Your task to perform on an android device: Do I have any events this weekend? Image 0: 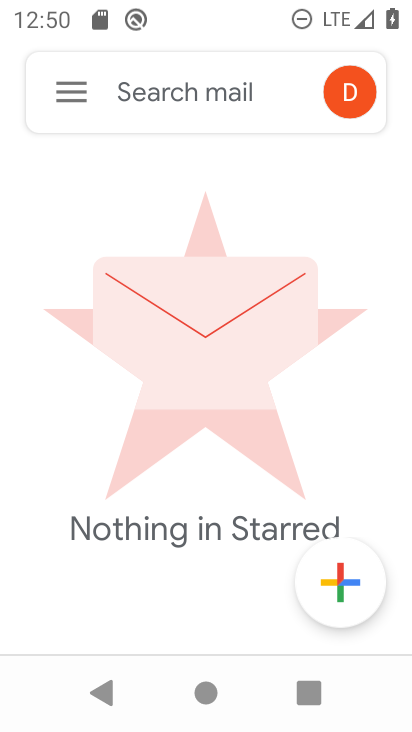
Step 0: press home button
Your task to perform on an android device: Do I have any events this weekend? Image 1: 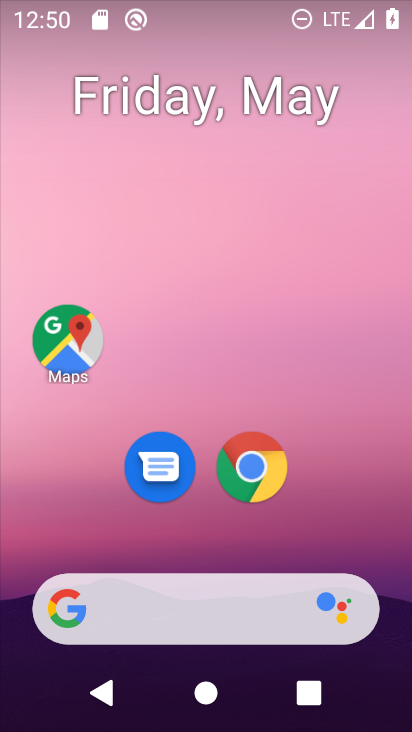
Step 1: drag from (206, 597) to (229, 4)
Your task to perform on an android device: Do I have any events this weekend? Image 2: 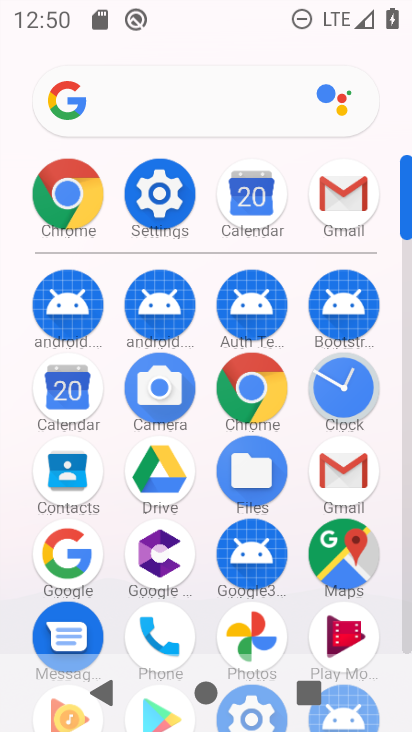
Step 2: click (66, 373)
Your task to perform on an android device: Do I have any events this weekend? Image 3: 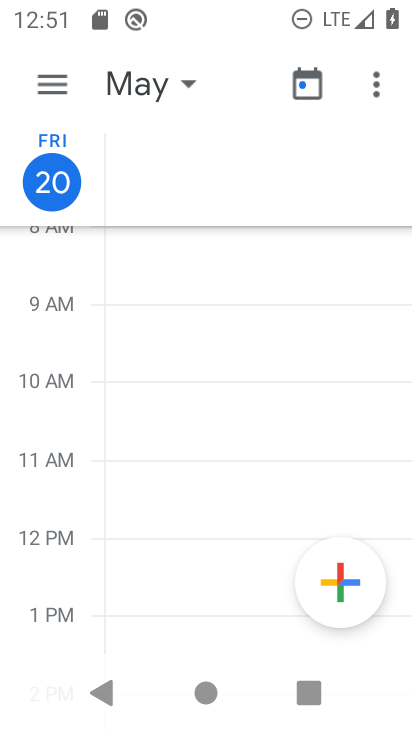
Step 3: click (184, 86)
Your task to perform on an android device: Do I have any events this weekend? Image 4: 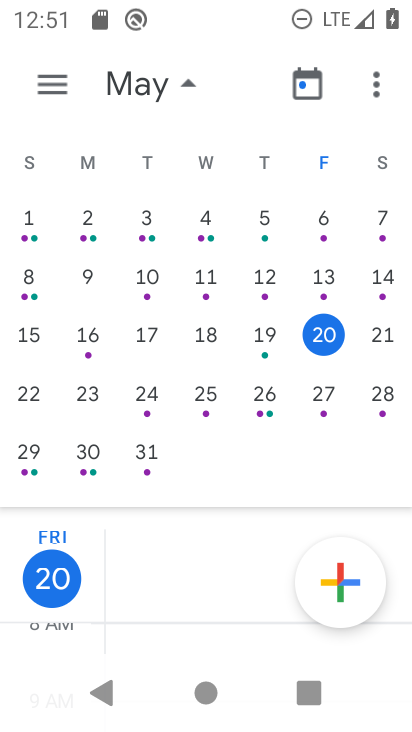
Step 4: click (379, 341)
Your task to perform on an android device: Do I have any events this weekend? Image 5: 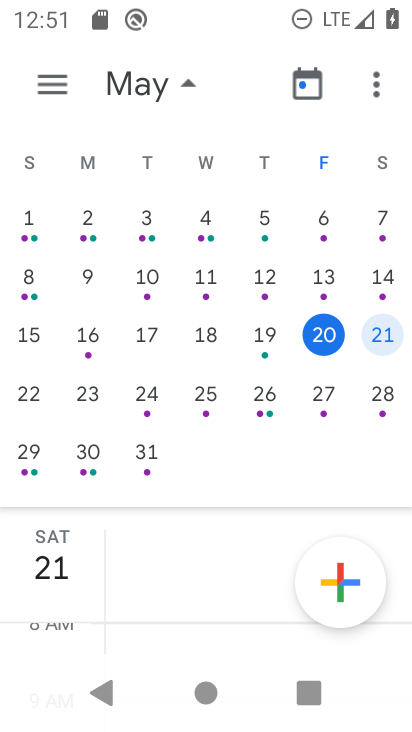
Step 5: task complete